Your task to perform on an android device: Open the Play Movies app and select the watchlist tab. Image 0: 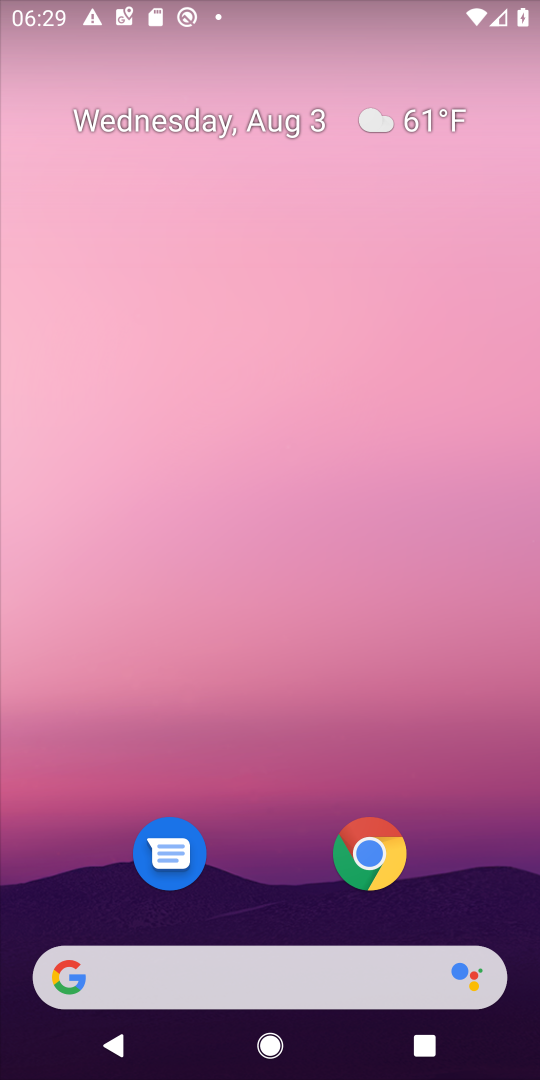
Step 0: drag from (273, 917) to (268, 296)
Your task to perform on an android device: Open the Play Movies app and select the watchlist tab. Image 1: 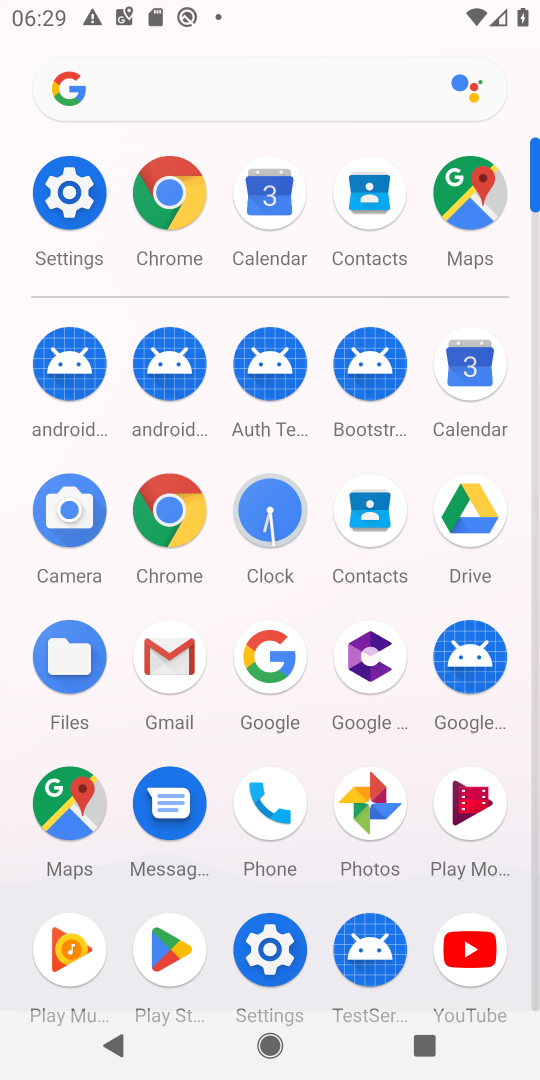
Step 1: click (462, 800)
Your task to perform on an android device: Open the Play Movies app and select the watchlist tab. Image 2: 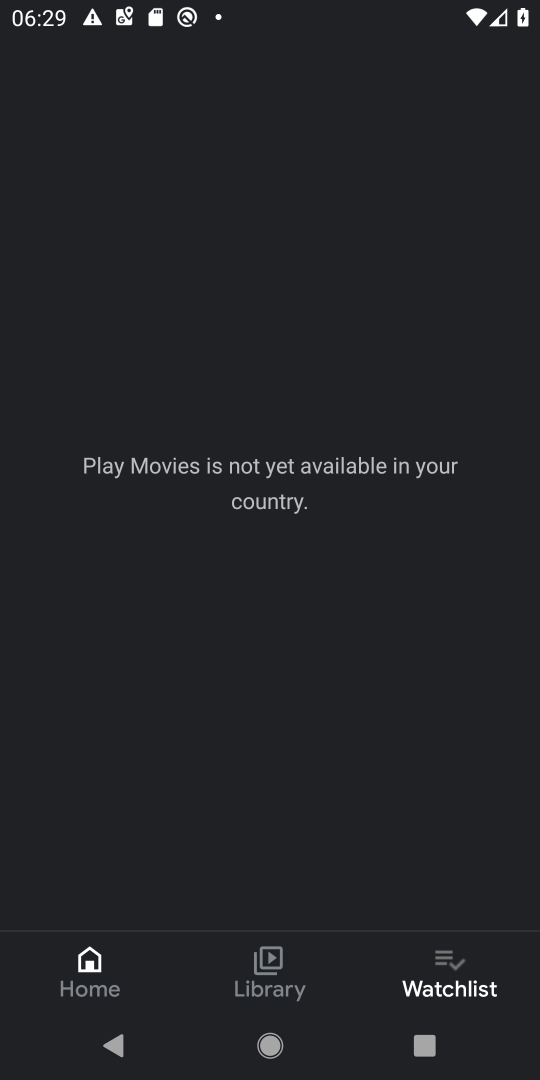
Step 2: task complete